Your task to perform on an android device: Open Google Image 0: 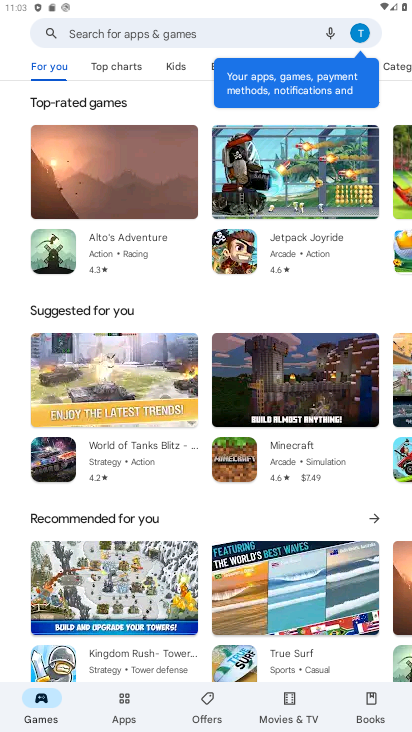
Step 0: press home button
Your task to perform on an android device: Open Google Image 1: 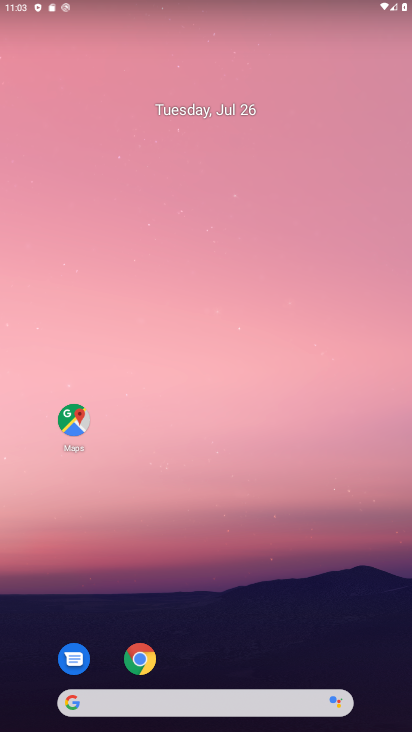
Step 1: click (74, 704)
Your task to perform on an android device: Open Google Image 2: 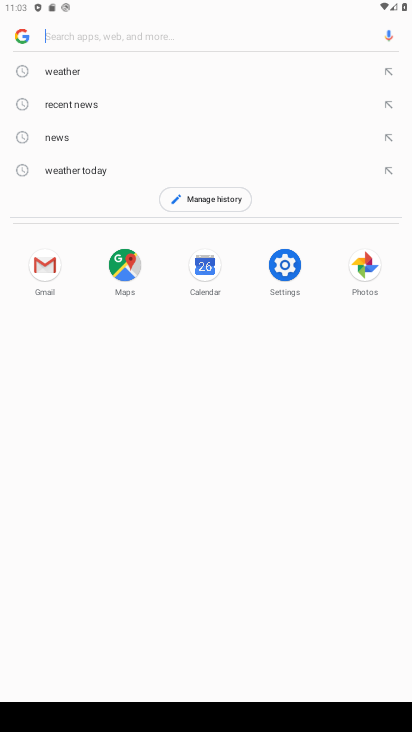
Step 2: click (22, 30)
Your task to perform on an android device: Open Google Image 3: 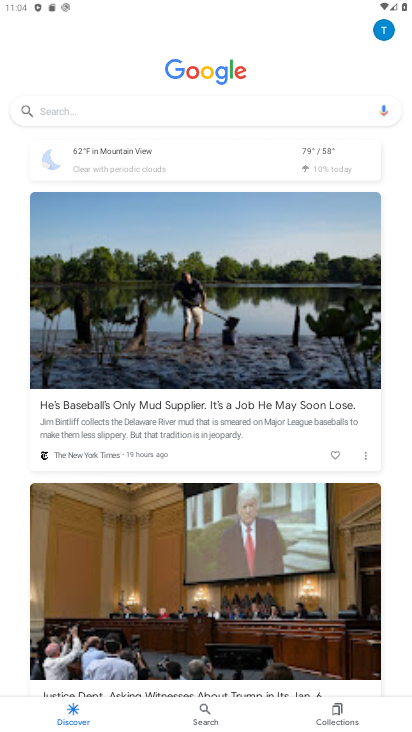
Step 3: task complete